Your task to perform on an android device: turn off airplane mode Image 0: 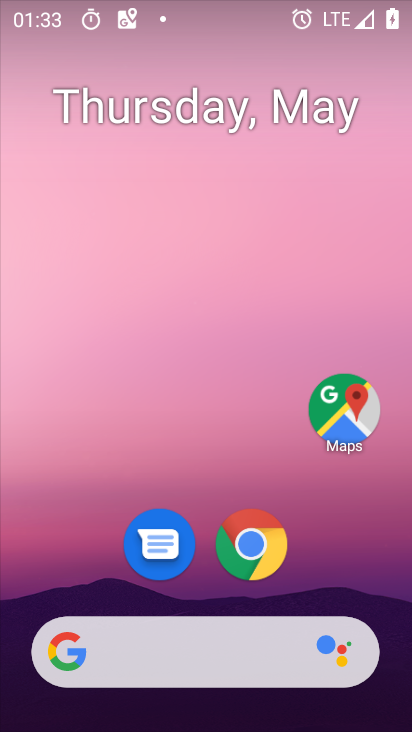
Step 0: drag from (353, 551) to (344, 65)
Your task to perform on an android device: turn off airplane mode Image 1: 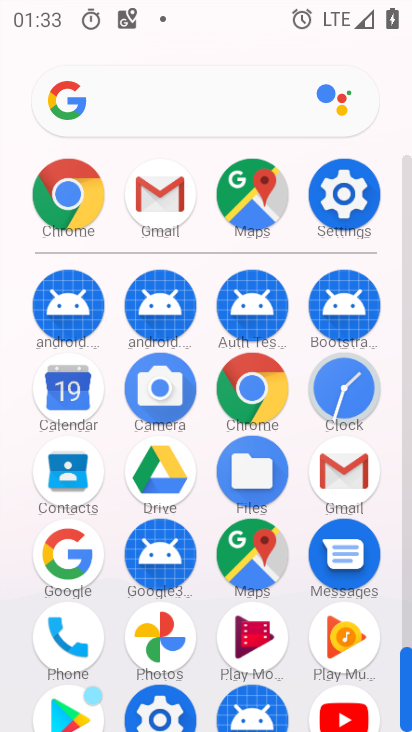
Step 1: click (342, 193)
Your task to perform on an android device: turn off airplane mode Image 2: 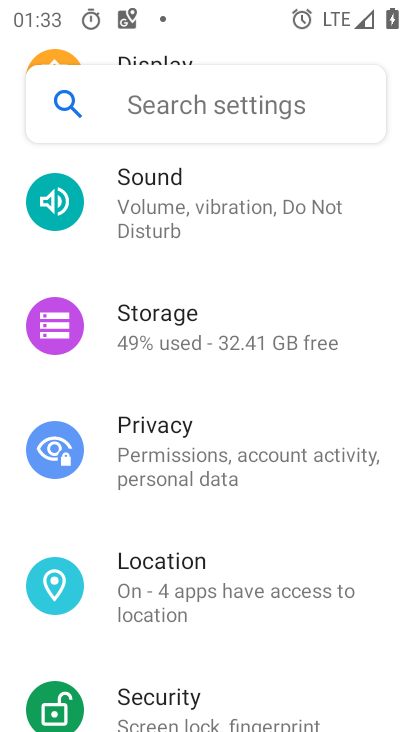
Step 2: drag from (333, 627) to (344, 401)
Your task to perform on an android device: turn off airplane mode Image 3: 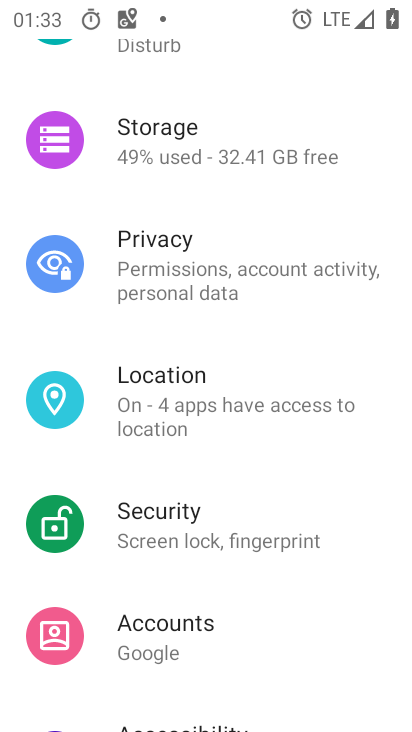
Step 3: drag from (362, 624) to (360, 428)
Your task to perform on an android device: turn off airplane mode Image 4: 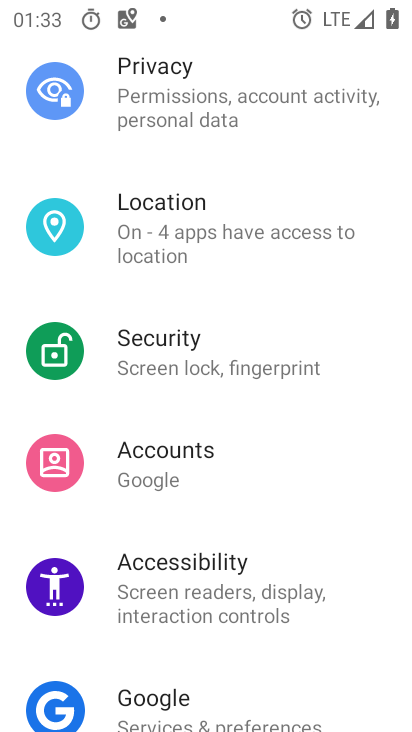
Step 4: drag from (361, 646) to (359, 447)
Your task to perform on an android device: turn off airplane mode Image 5: 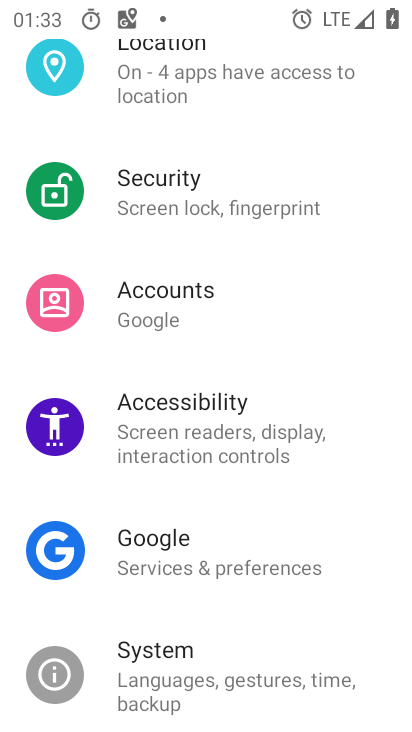
Step 5: drag from (355, 288) to (332, 528)
Your task to perform on an android device: turn off airplane mode Image 6: 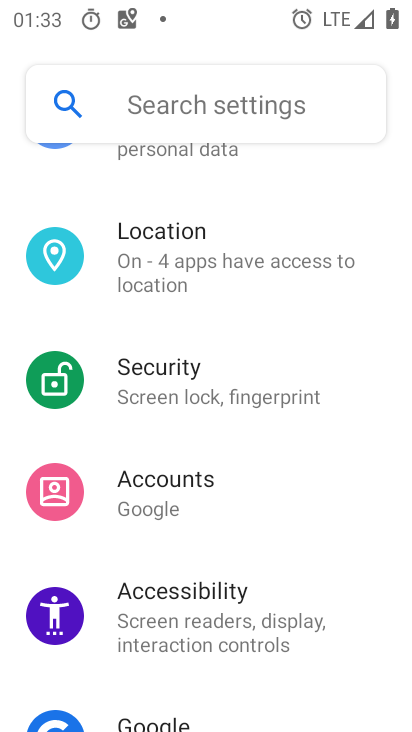
Step 6: drag from (360, 228) to (367, 490)
Your task to perform on an android device: turn off airplane mode Image 7: 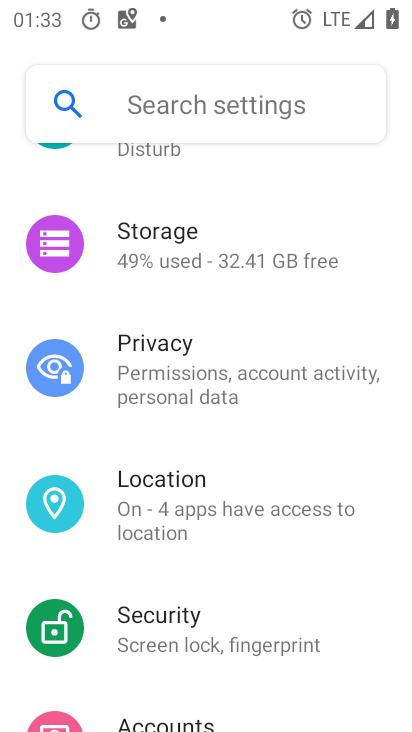
Step 7: drag from (354, 224) to (325, 462)
Your task to perform on an android device: turn off airplane mode Image 8: 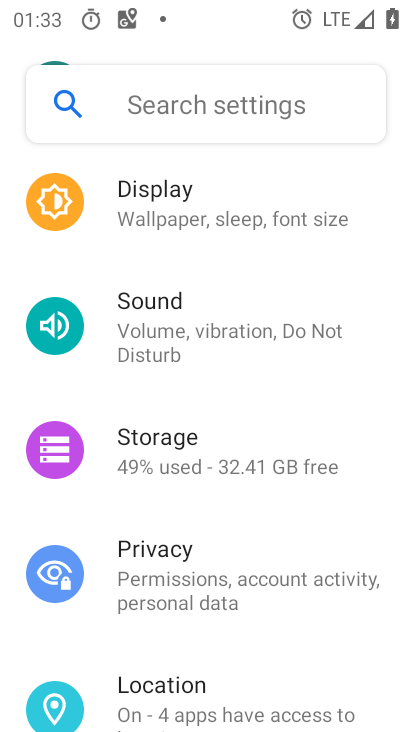
Step 8: drag from (355, 265) to (356, 461)
Your task to perform on an android device: turn off airplane mode Image 9: 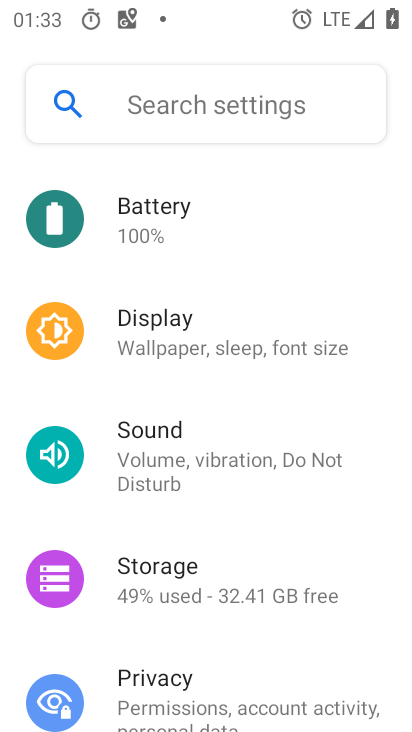
Step 9: drag from (367, 218) to (360, 426)
Your task to perform on an android device: turn off airplane mode Image 10: 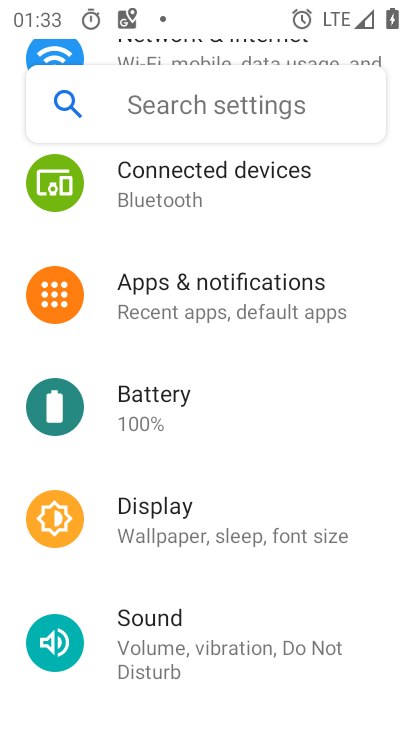
Step 10: drag from (354, 186) to (354, 387)
Your task to perform on an android device: turn off airplane mode Image 11: 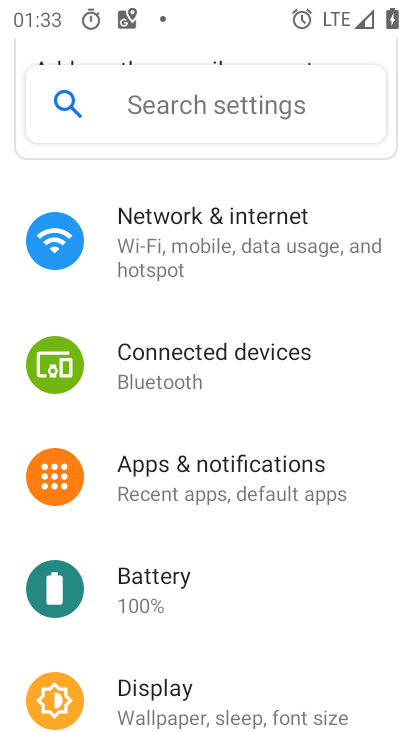
Step 11: click (297, 227)
Your task to perform on an android device: turn off airplane mode Image 12: 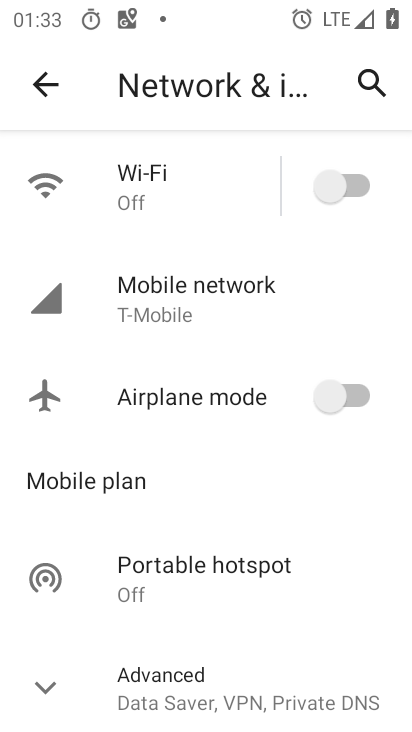
Step 12: task complete